Your task to perform on an android device: Go to calendar. Show me events next week Image 0: 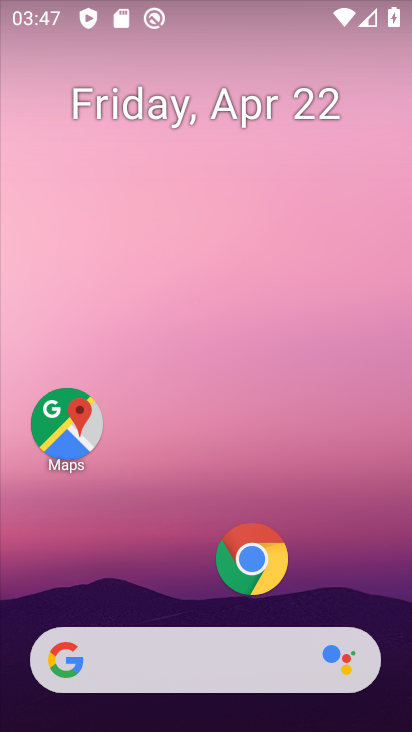
Step 0: drag from (188, 555) to (300, 61)
Your task to perform on an android device: Go to calendar. Show me events next week Image 1: 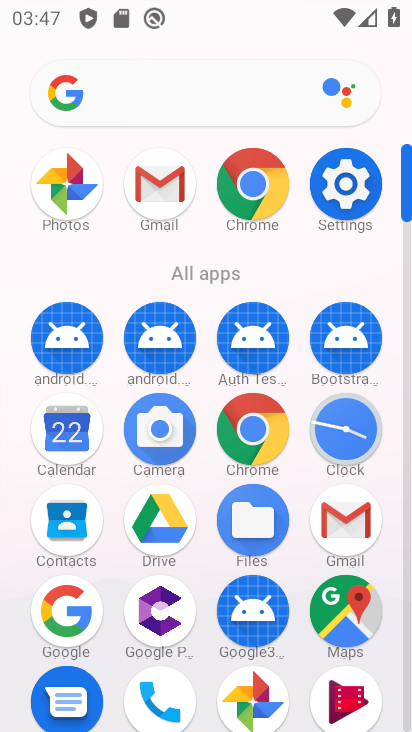
Step 1: click (62, 419)
Your task to perform on an android device: Go to calendar. Show me events next week Image 2: 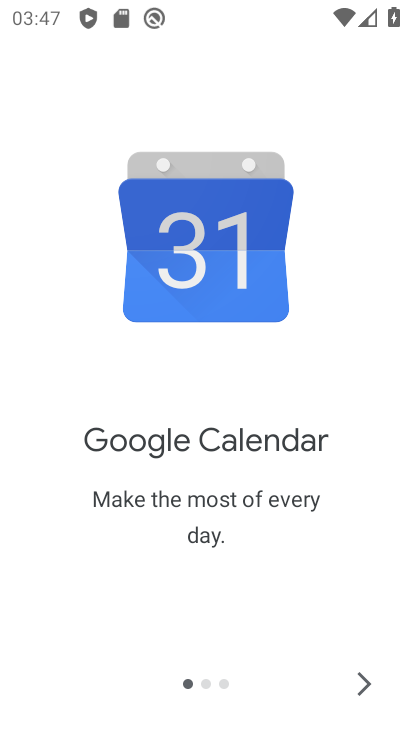
Step 2: click (366, 686)
Your task to perform on an android device: Go to calendar. Show me events next week Image 3: 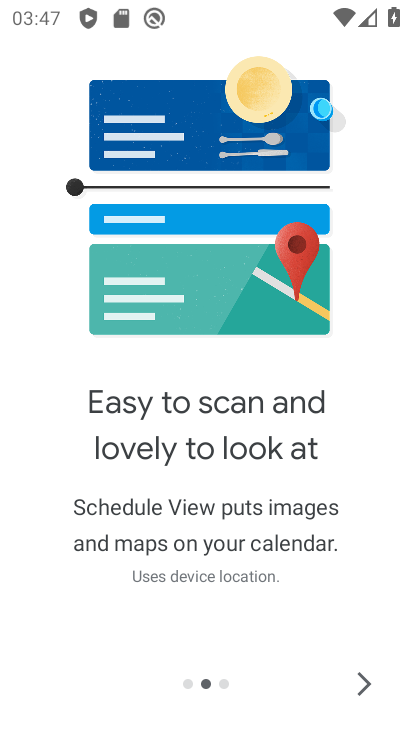
Step 3: click (363, 680)
Your task to perform on an android device: Go to calendar. Show me events next week Image 4: 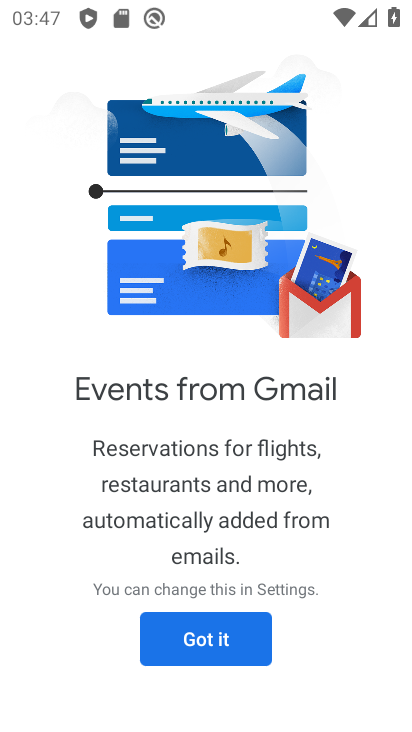
Step 4: click (206, 644)
Your task to perform on an android device: Go to calendar. Show me events next week Image 5: 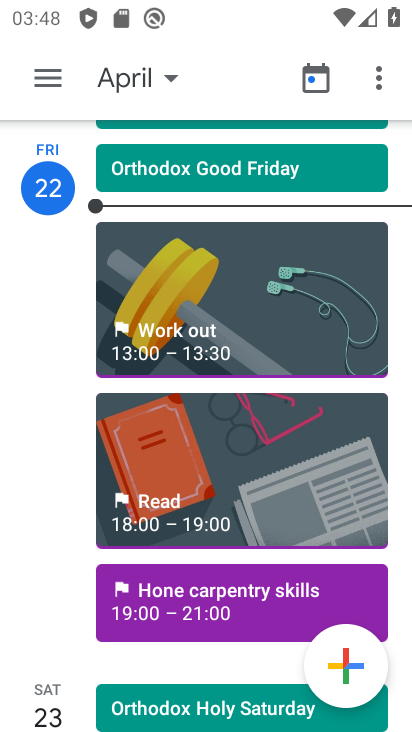
Step 5: click (40, 68)
Your task to perform on an android device: Go to calendar. Show me events next week Image 6: 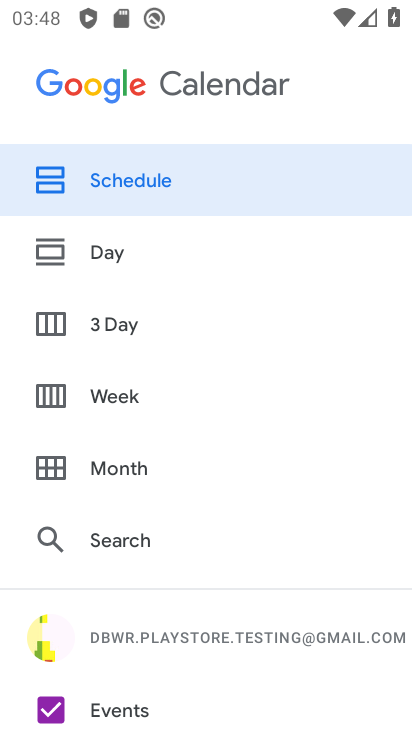
Step 6: drag from (106, 635) to (259, 210)
Your task to perform on an android device: Go to calendar. Show me events next week Image 7: 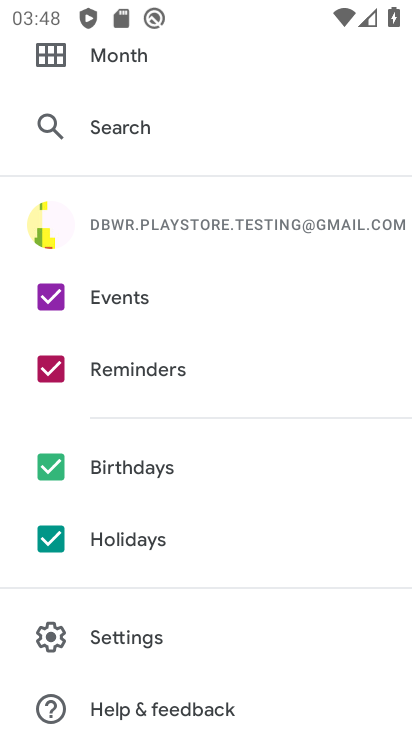
Step 7: click (53, 366)
Your task to perform on an android device: Go to calendar. Show me events next week Image 8: 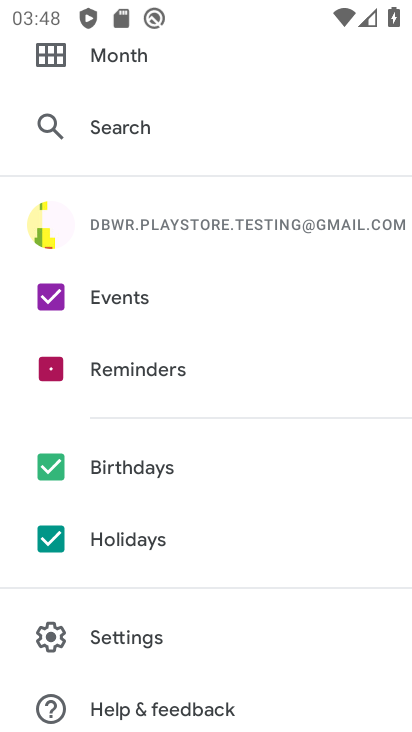
Step 8: click (61, 467)
Your task to perform on an android device: Go to calendar. Show me events next week Image 9: 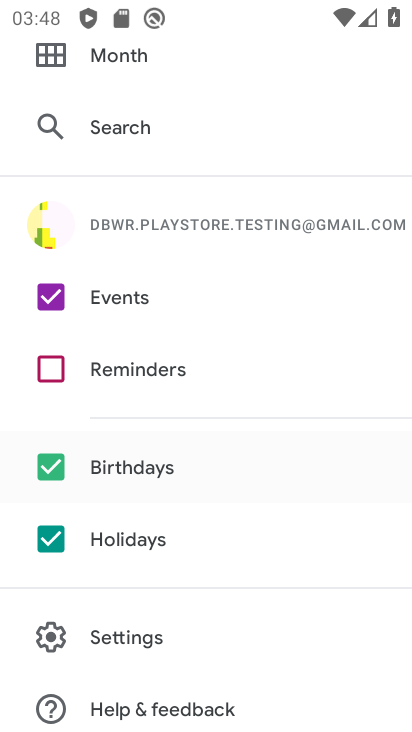
Step 9: click (52, 542)
Your task to perform on an android device: Go to calendar. Show me events next week Image 10: 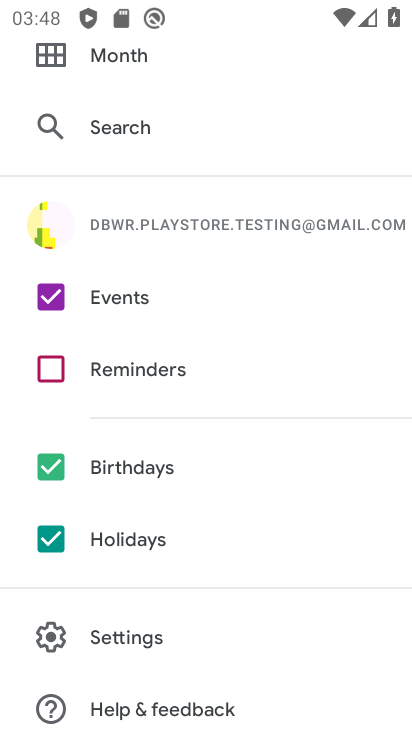
Step 10: click (51, 465)
Your task to perform on an android device: Go to calendar. Show me events next week Image 11: 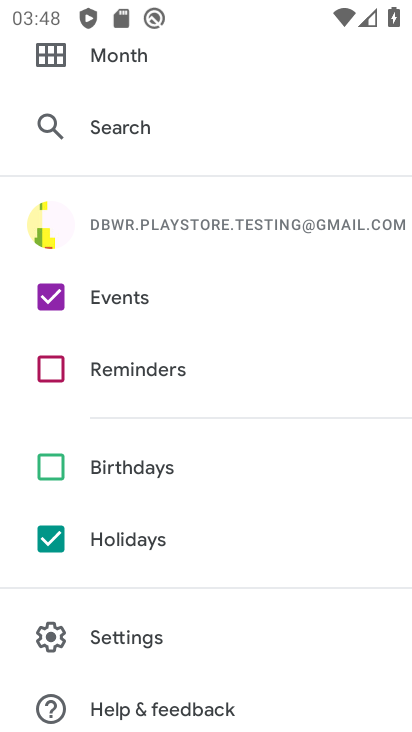
Step 11: click (47, 541)
Your task to perform on an android device: Go to calendar. Show me events next week Image 12: 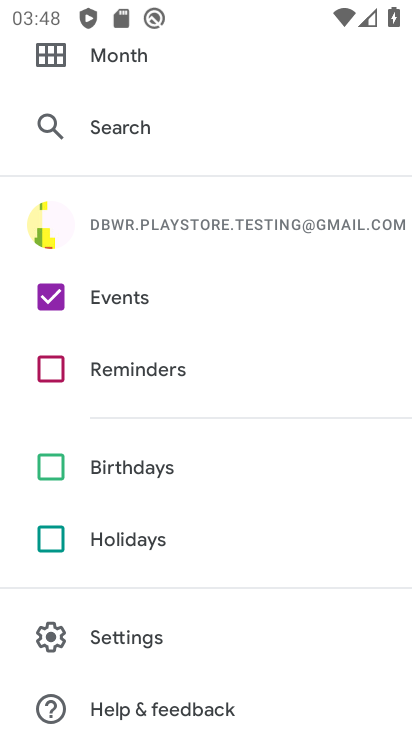
Step 12: drag from (247, 281) to (234, 428)
Your task to perform on an android device: Go to calendar. Show me events next week Image 13: 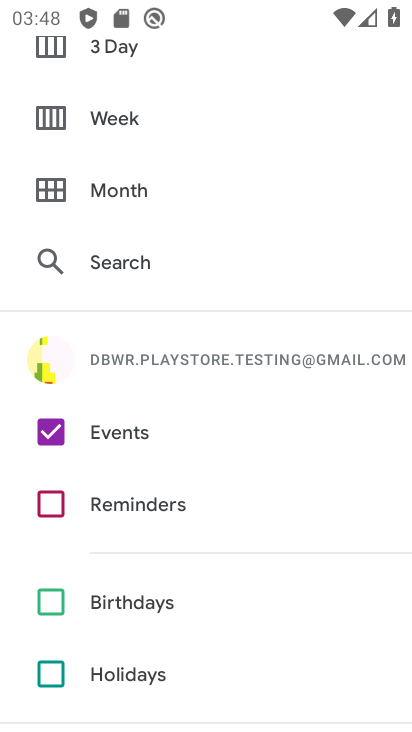
Step 13: click (120, 122)
Your task to perform on an android device: Go to calendar. Show me events next week Image 14: 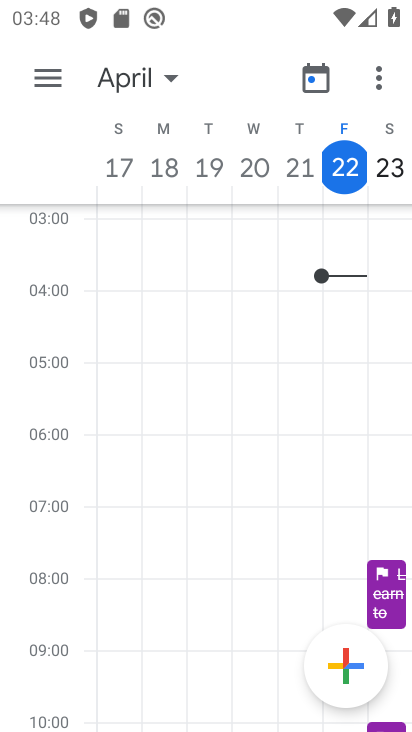
Step 14: task complete